Your task to perform on an android device: Clear all items from cart on amazon.com. Search for razer blade on amazon.com, select the first entry, add it to the cart, then select checkout. Image 0: 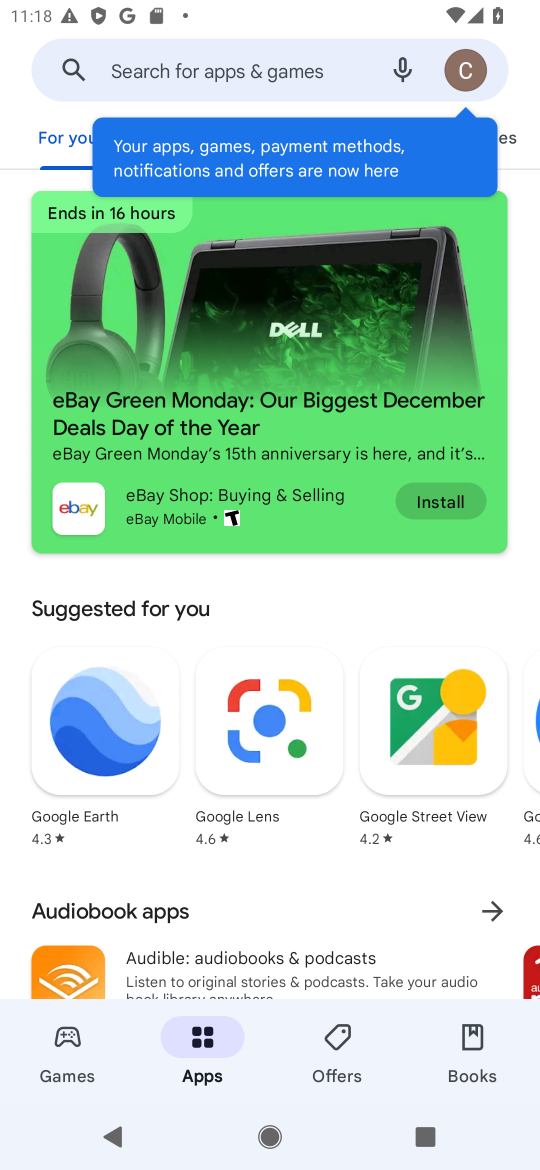
Step 0: press home button
Your task to perform on an android device: Clear all items from cart on amazon.com. Search for razer blade on amazon.com, select the first entry, add it to the cart, then select checkout. Image 1: 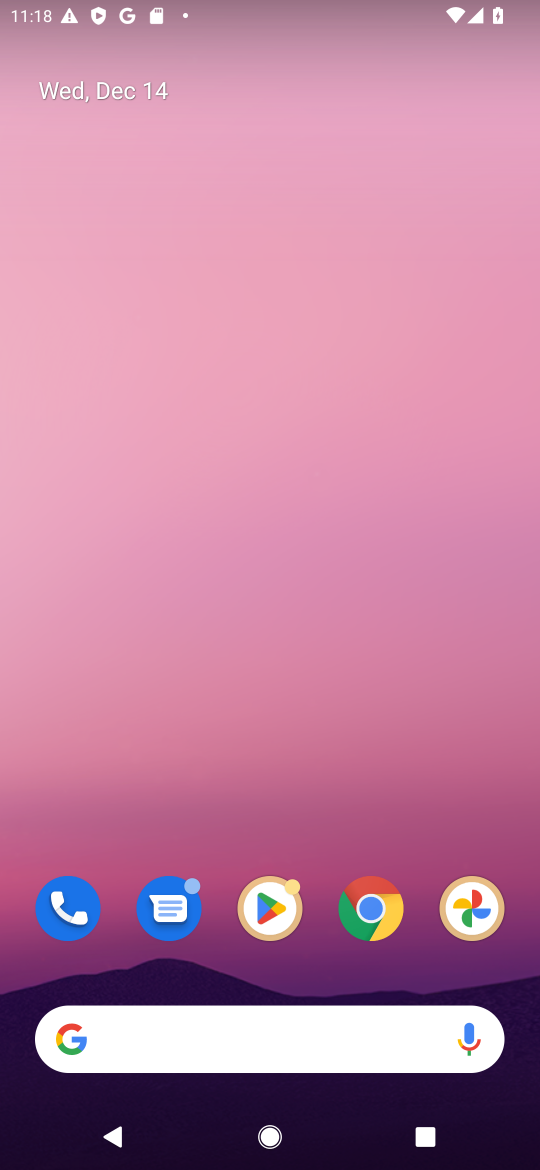
Step 1: click (366, 905)
Your task to perform on an android device: Clear all items from cart on amazon.com. Search for razer blade on amazon.com, select the first entry, add it to the cart, then select checkout. Image 2: 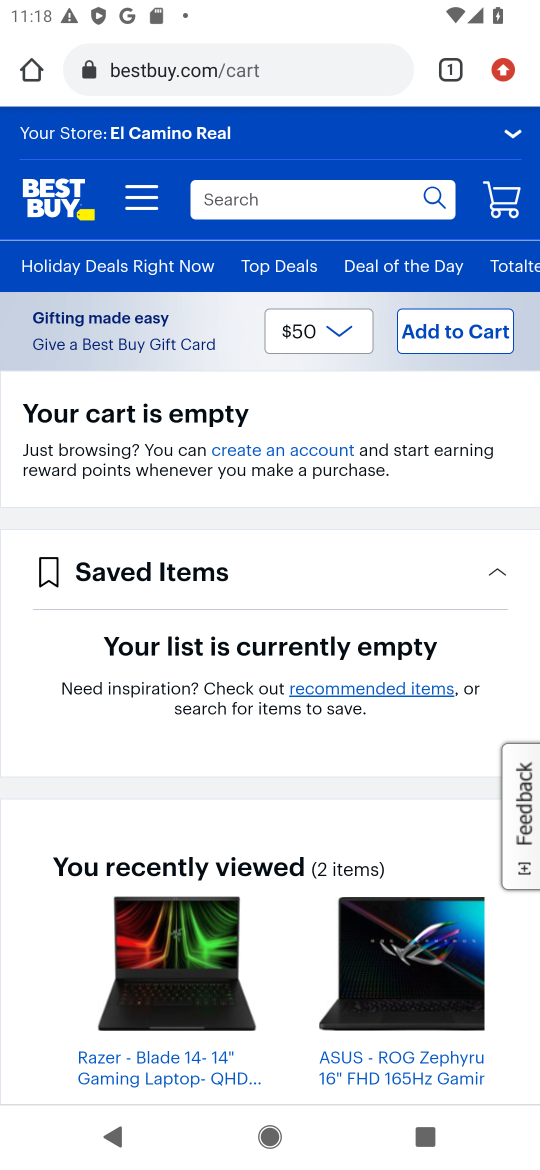
Step 2: click (227, 73)
Your task to perform on an android device: Clear all items from cart on amazon.com. Search for razer blade on amazon.com, select the first entry, add it to the cart, then select checkout. Image 3: 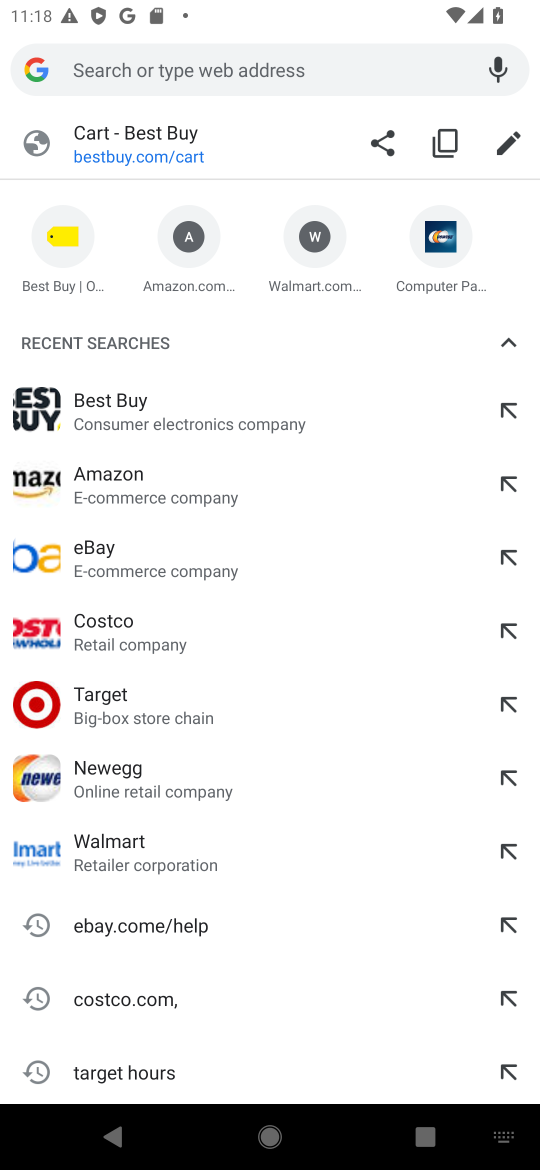
Step 3: click (188, 494)
Your task to perform on an android device: Clear all items from cart on amazon.com. Search for razer blade on amazon.com, select the first entry, add it to the cart, then select checkout. Image 4: 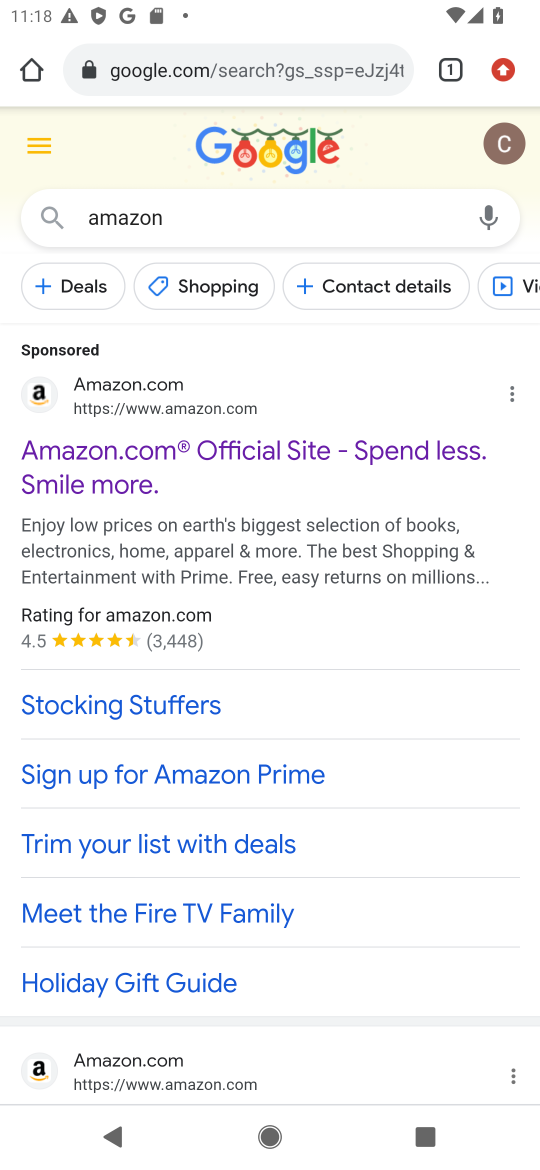
Step 4: click (173, 437)
Your task to perform on an android device: Clear all items from cart on amazon.com. Search for razer blade on amazon.com, select the first entry, add it to the cart, then select checkout. Image 5: 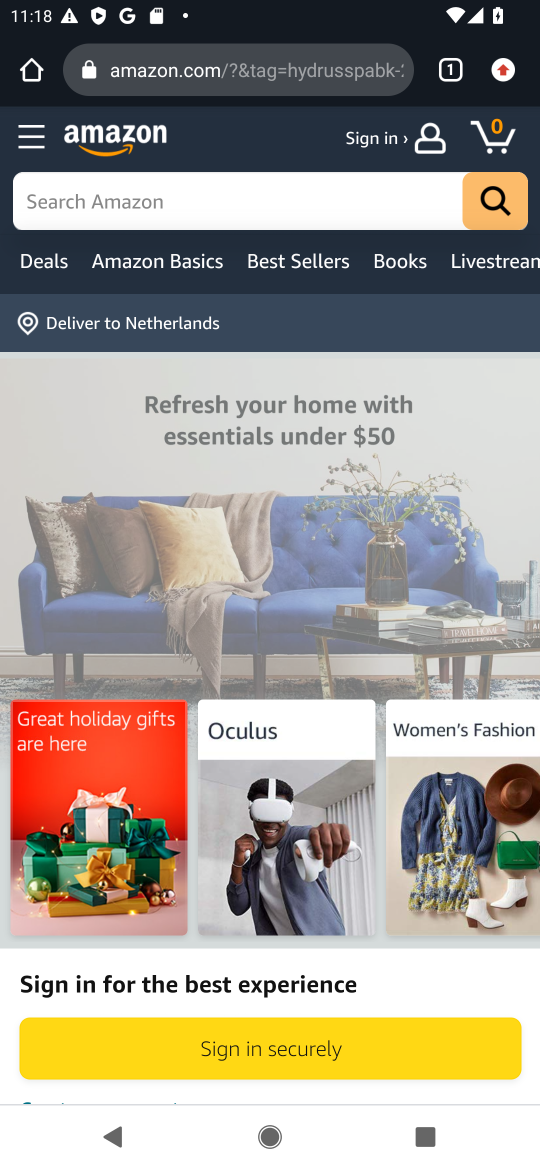
Step 5: click (112, 211)
Your task to perform on an android device: Clear all items from cart on amazon.com. Search for razer blade on amazon.com, select the first entry, add it to the cart, then select checkout. Image 6: 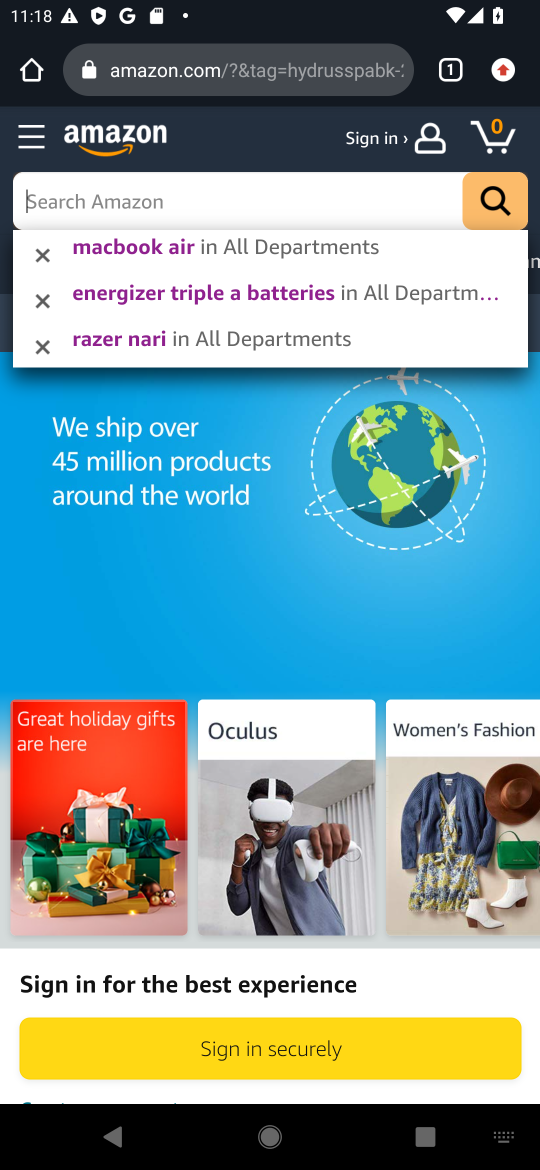
Step 6: type "razer blade"
Your task to perform on an android device: Clear all items from cart on amazon.com. Search for razer blade on amazon.com, select the first entry, add it to the cart, then select checkout. Image 7: 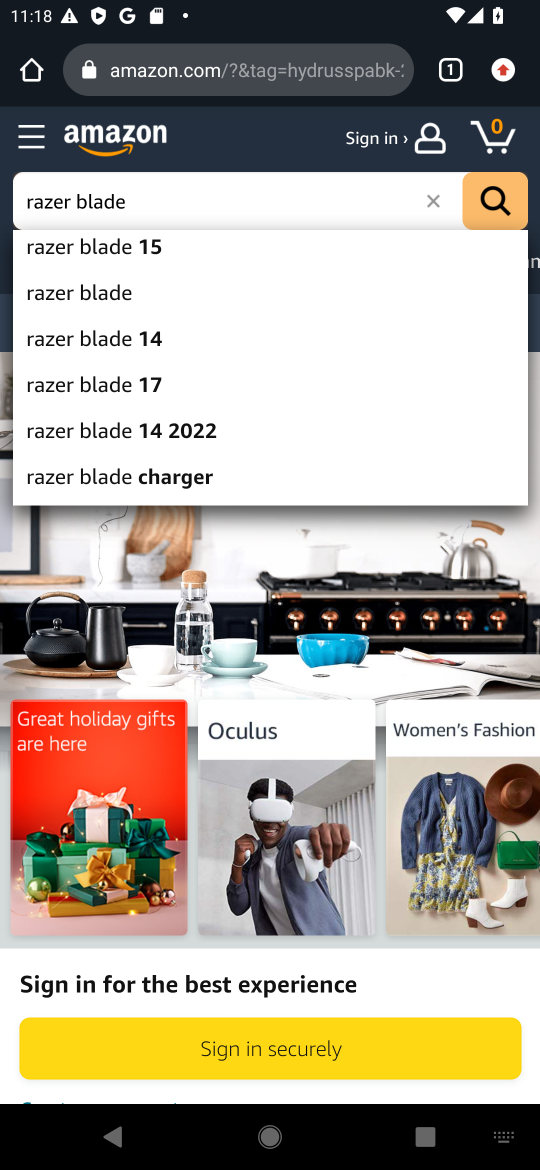
Step 7: click (86, 293)
Your task to perform on an android device: Clear all items from cart on amazon.com. Search for razer blade on amazon.com, select the first entry, add it to the cart, then select checkout. Image 8: 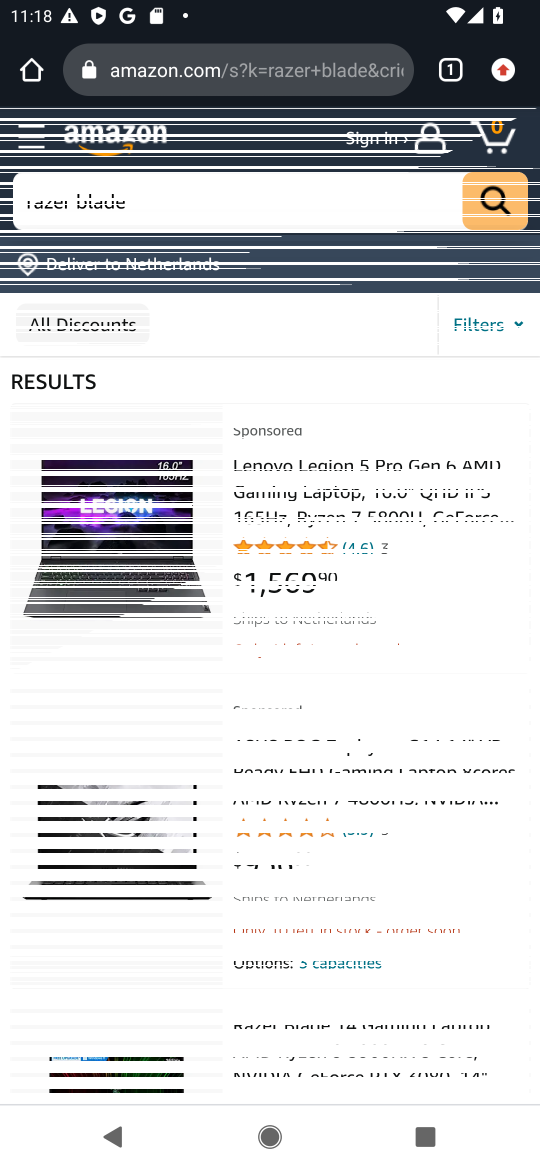
Step 8: click (101, 523)
Your task to perform on an android device: Clear all items from cart on amazon.com. Search for razer blade on amazon.com, select the first entry, add it to the cart, then select checkout. Image 9: 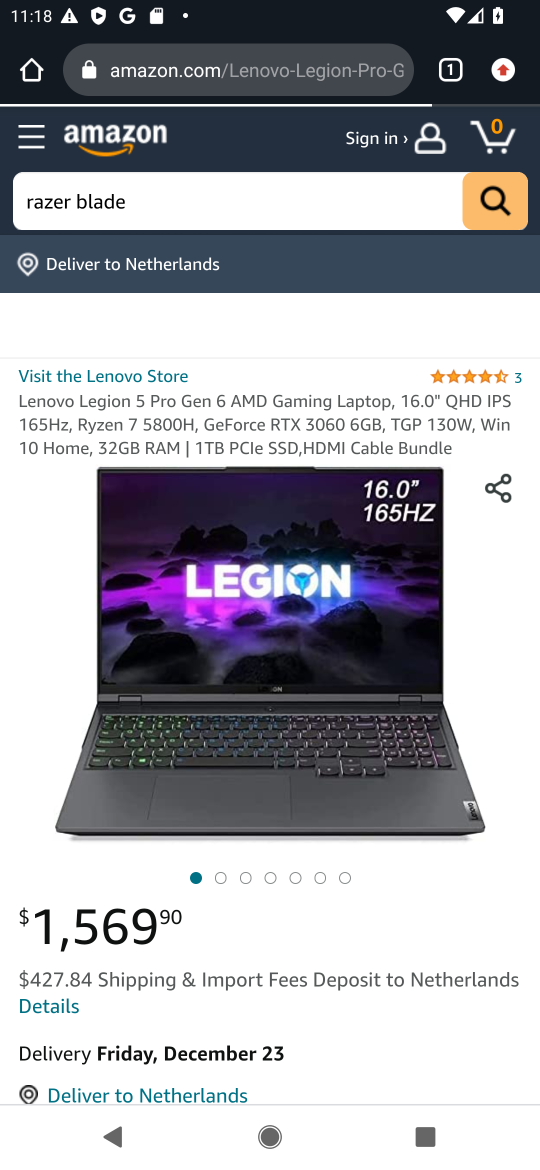
Step 9: drag from (316, 840) to (334, 413)
Your task to perform on an android device: Clear all items from cart on amazon.com. Search for razer blade on amazon.com, select the first entry, add it to the cart, then select checkout. Image 10: 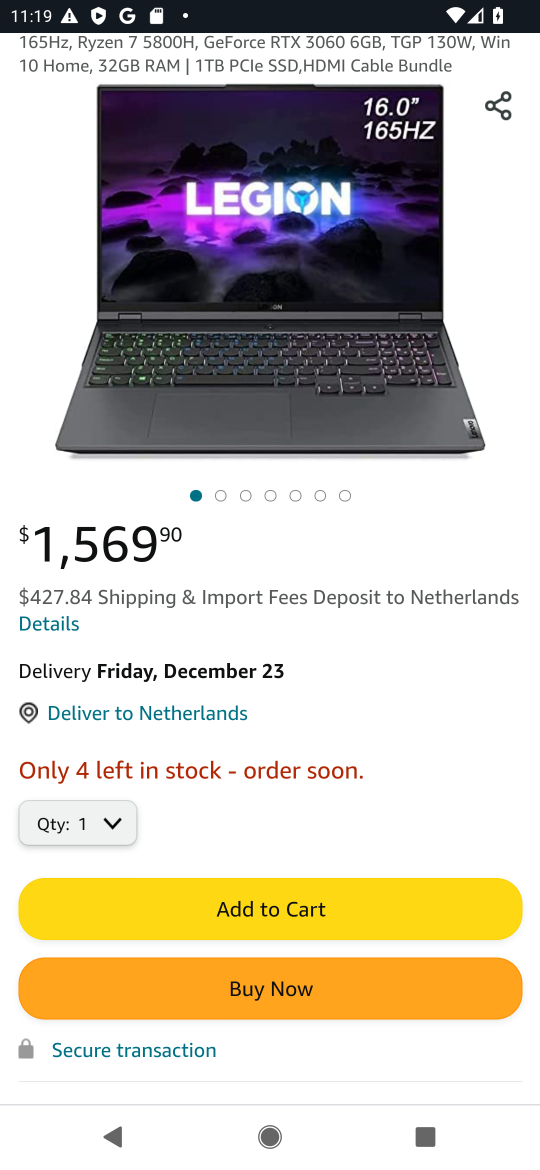
Step 10: click (372, 923)
Your task to perform on an android device: Clear all items from cart on amazon.com. Search for razer blade on amazon.com, select the first entry, add it to the cart, then select checkout. Image 11: 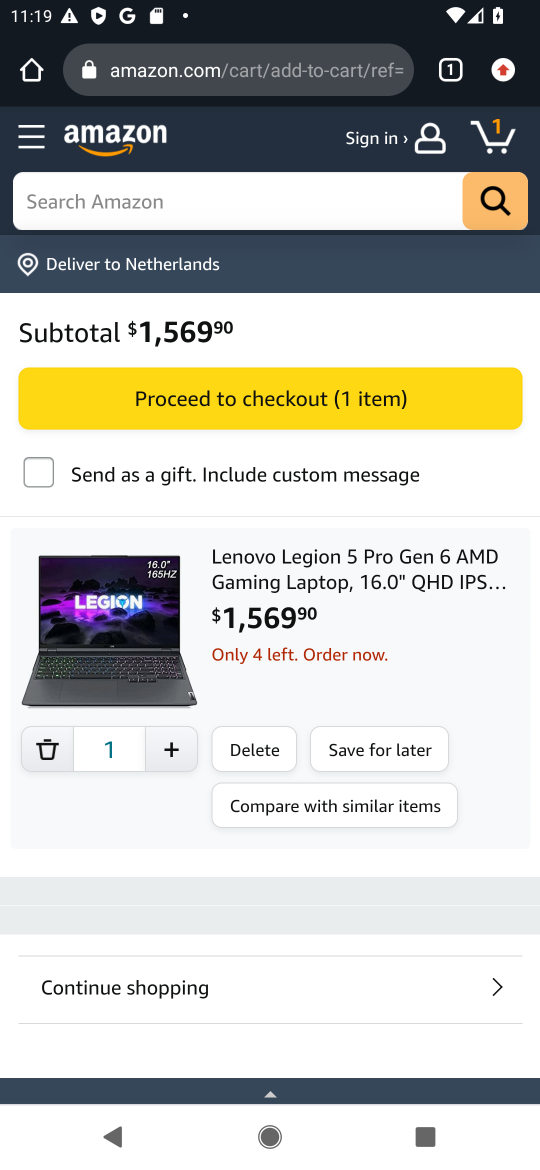
Step 11: task complete